Your task to perform on an android device: turn notification dots off Image 0: 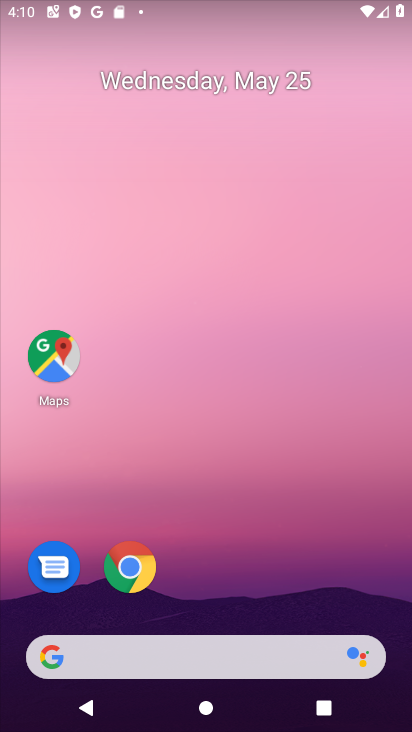
Step 0: drag from (302, 574) to (217, 14)
Your task to perform on an android device: turn notification dots off Image 1: 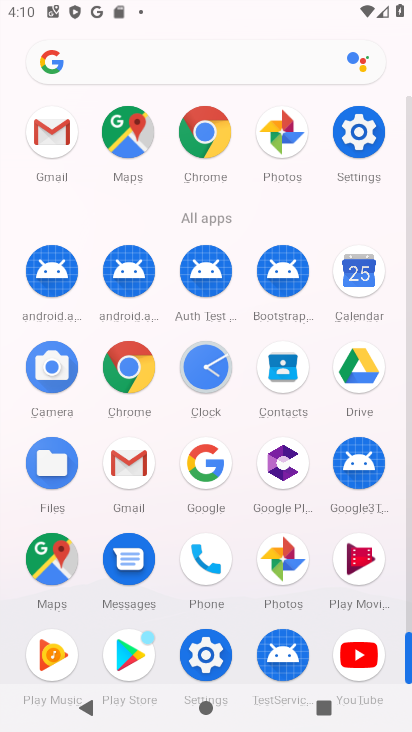
Step 1: drag from (17, 557) to (28, 236)
Your task to perform on an android device: turn notification dots off Image 2: 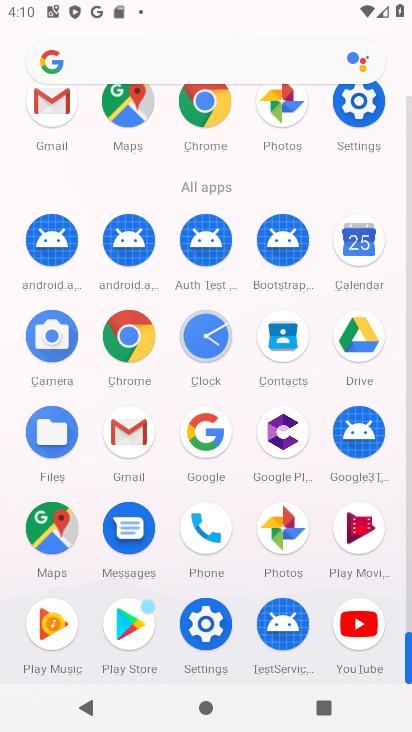
Step 2: click (203, 620)
Your task to perform on an android device: turn notification dots off Image 3: 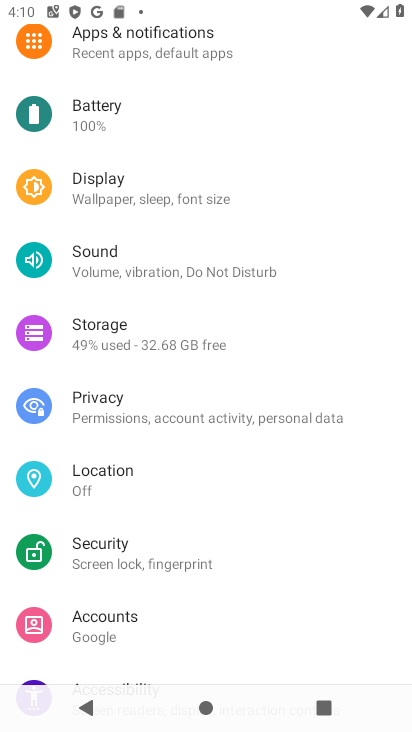
Step 3: click (194, 41)
Your task to perform on an android device: turn notification dots off Image 4: 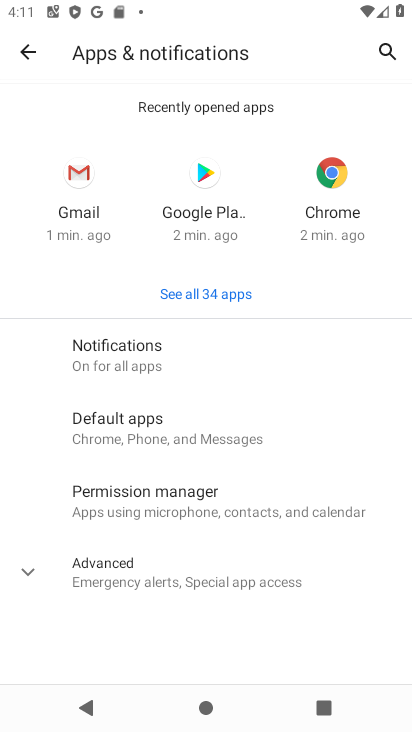
Step 4: click (47, 560)
Your task to perform on an android device: turn notification dots off Image 5: 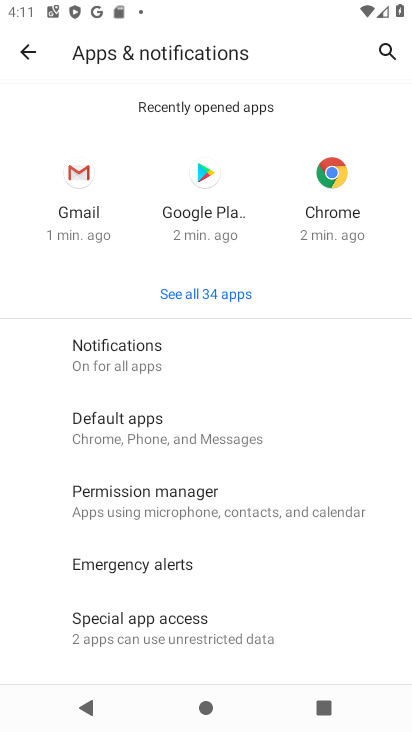
Step 5: drag from (253, 567) to (250, 309)
Your task to perform on an android device: turn notification dots off Image 6: 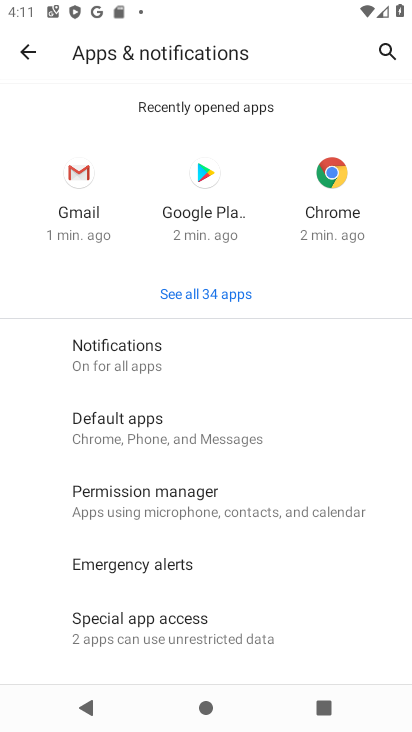
Step 6: click (160, 334)
Your task to perform on an android device: turn notification dots off Image 7: 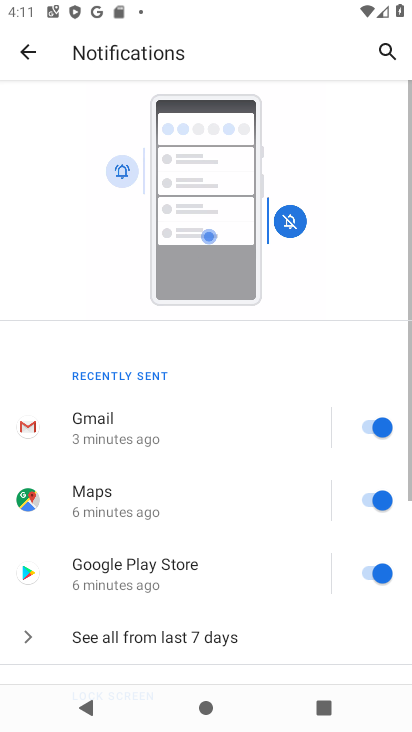
Step 7: drag from (214, 615) to (249, 141)
Your task to perform on an android device: turn notification dots off Image 8: 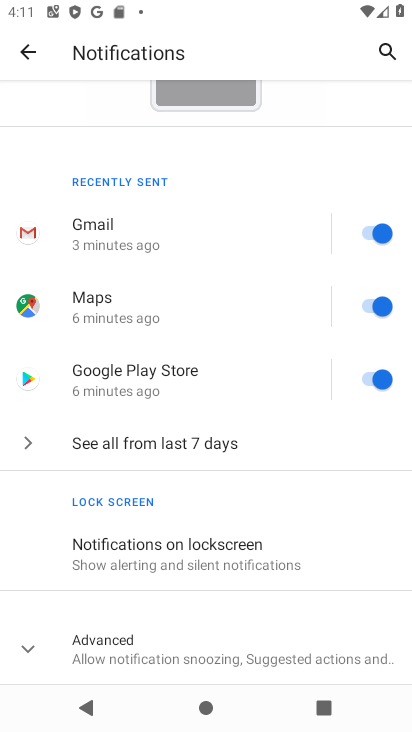
Step 8: click (68, 650)
Your task to perform on an android device: turn notification dots off Image 9: 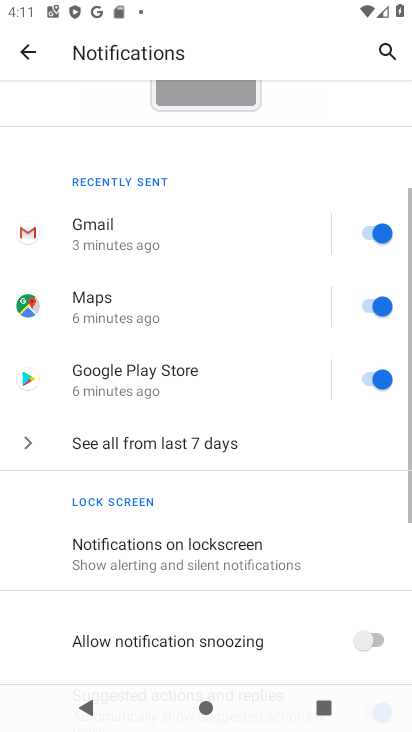
Step 9: drag from (248, 607) to (230, 176)
Your task to perform on an android device: turn notification dots off Image 10: 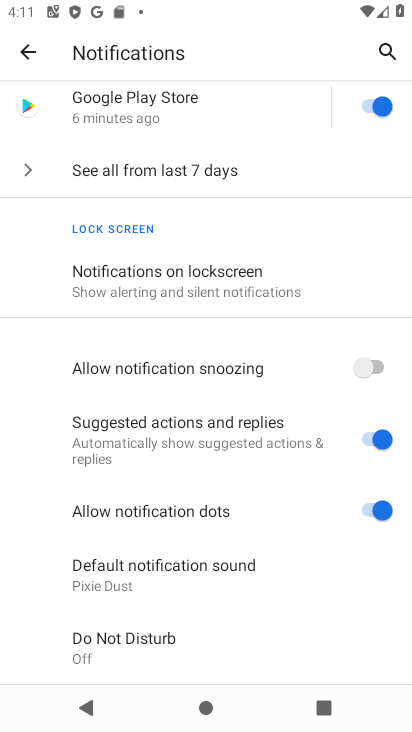
Step 10: click (382, 512)
Your task to perform on an android device: turn notification dots off Image 11: 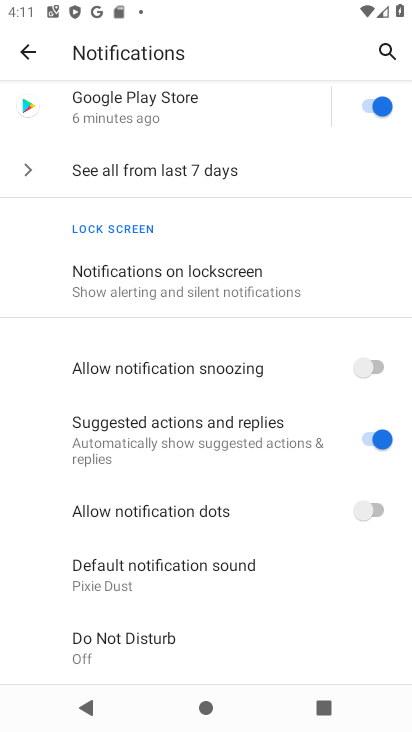
Step 11: task complete